Your task to perform on an android device: toggle pop-ups in chrome Image 0: 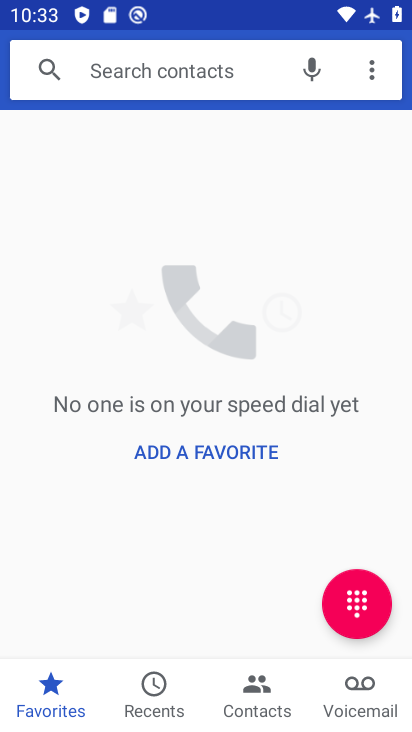
Step 0: press back button
Your task to perform on an android device: toggle pop-ups in chrome Image 1: 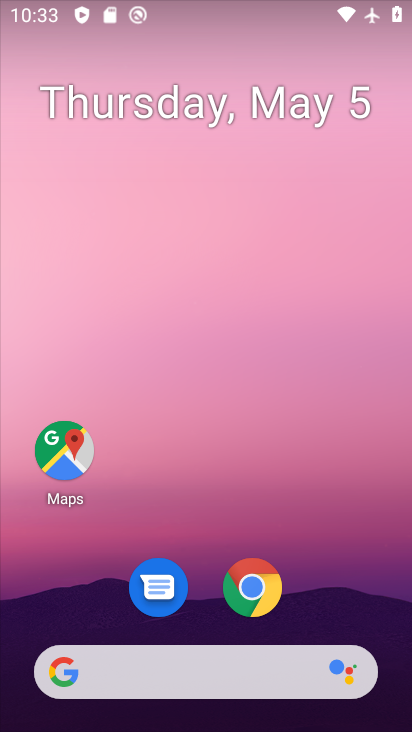
Step 1: click (250, 587)
Your task to perform on an android device: toggle pop-ups in chrome Image 2: 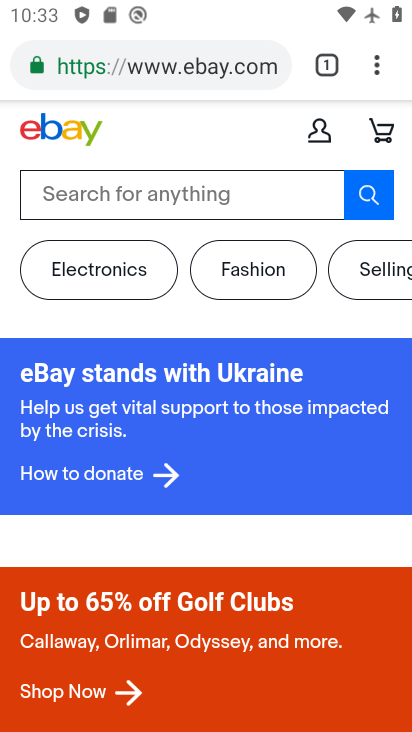
Step 2: drag from (376, 71) to (138, 635)
Your task to perform on an android device: toggle pop-ups in chrome Image 3: 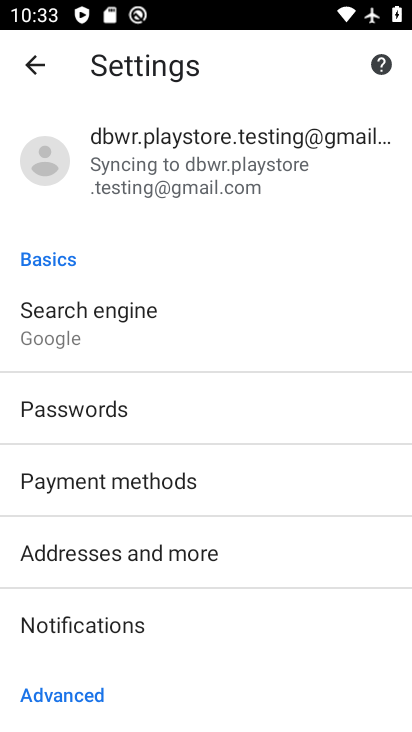
Step 3: drag from (270, 661) to (286, 114)
Your task to perform on an android device: toggle pop-ups in chrome Image 4: 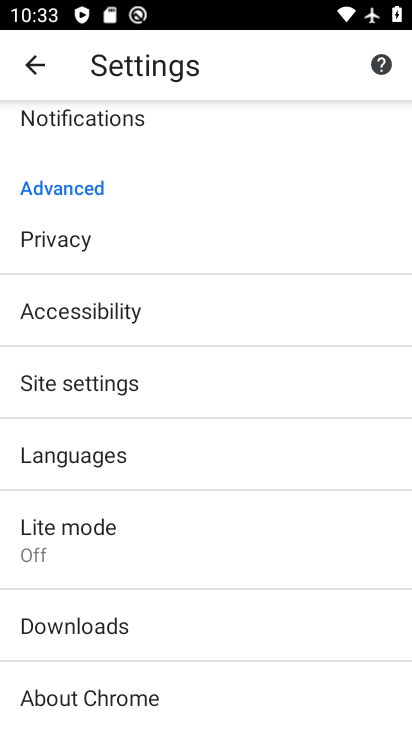
Step 4: click (140, 382)
Your task to perform on an android device: toggle pop-ups in chrome Image 5: 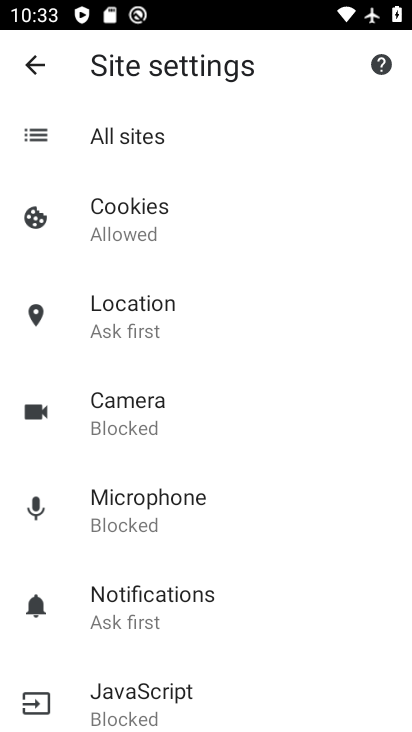
Step 5: drag from (197, 574) to (201, 189)
Your task to perform on an android device: toggle pop-ups in chrome Image 6: 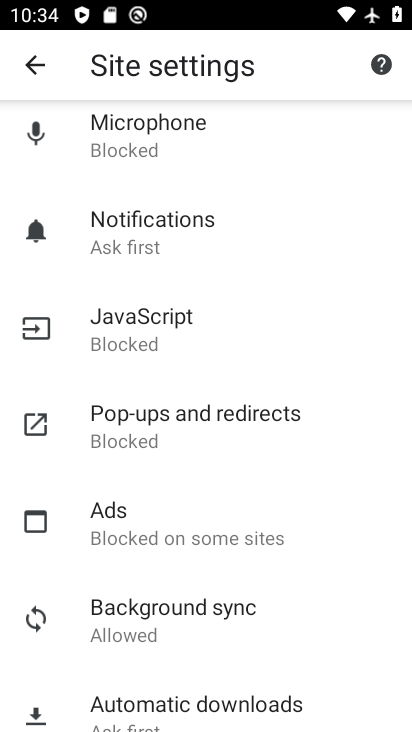
Step 6: click (177, 430)
Your task to perform on an android device: toggle pop-ups in chrome Image 7: 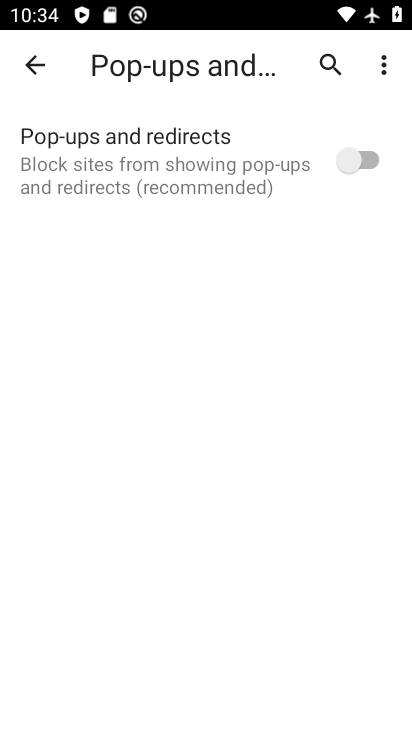
Step 7: click (362, 161)
Your task to perform on an android device: toggle pop-ups in chrome Image 8: 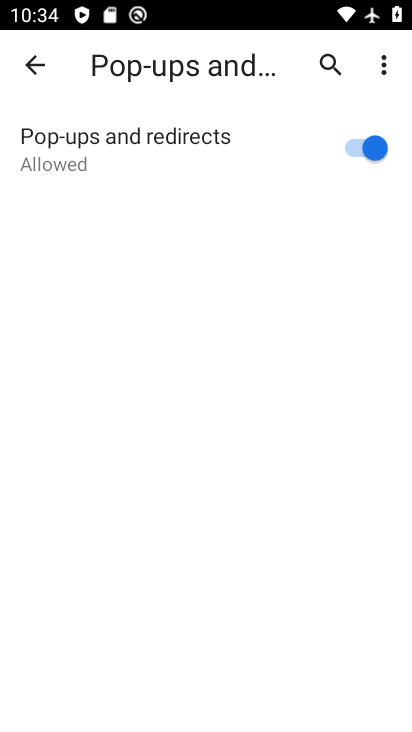
Step 8: task complete